Your task to perform on an android device: open a new tab in the chrome app Image 0: 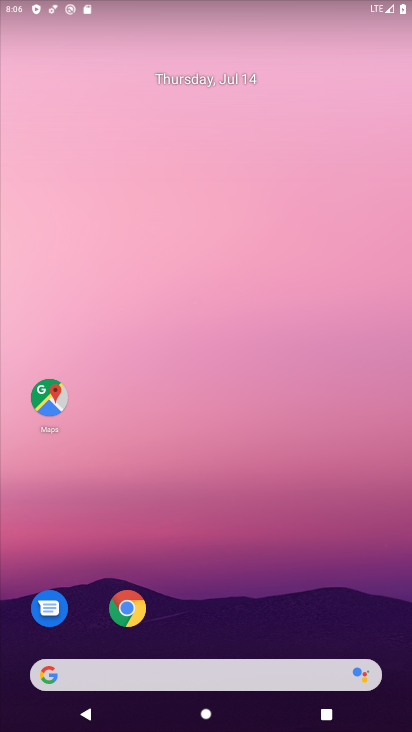
Step 0: click (131, 612)
Your task to perform on an android device: open a new tab in the chrome app Image 1: 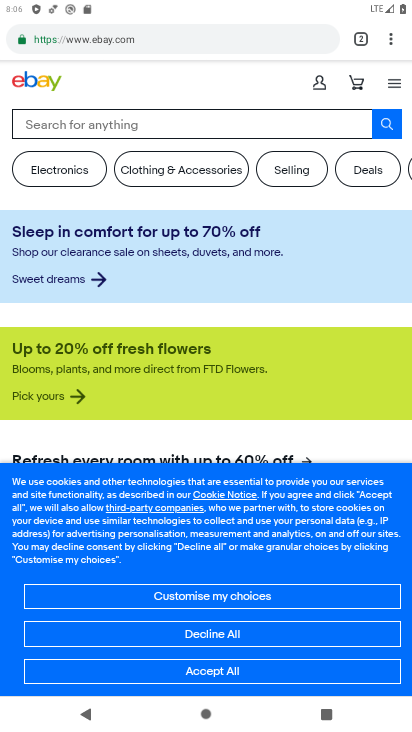
Step 1: click (388, 39)
Your task to perform on an android device: open a new tab in the chrome app Image 2: 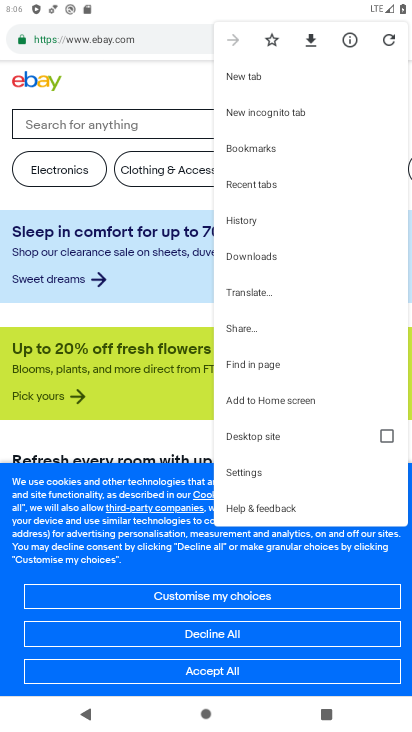
Step 2: click (248, 74)
Your task to perform on an android device: open a new tab in the chrome app Image 3: 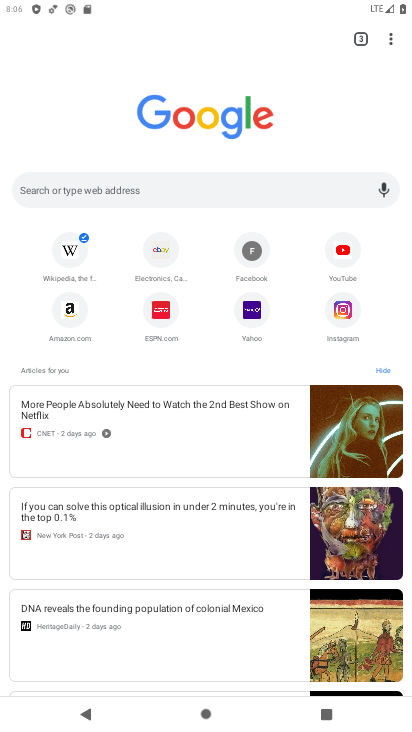
Step 3: task complete